Your task to perform on an android device: open app "Contacts" (install if not already installed) Image 0: 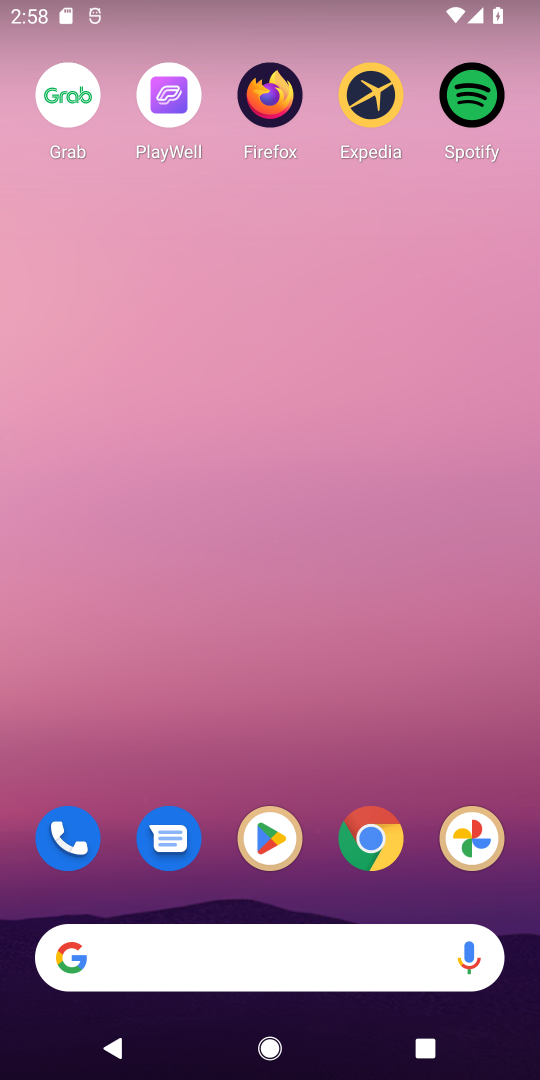
Step 0: drag from (319, 897) to (190, 84)
Your task to perform on an android device: open app "Contacts" (install if not already installed) Image 1: 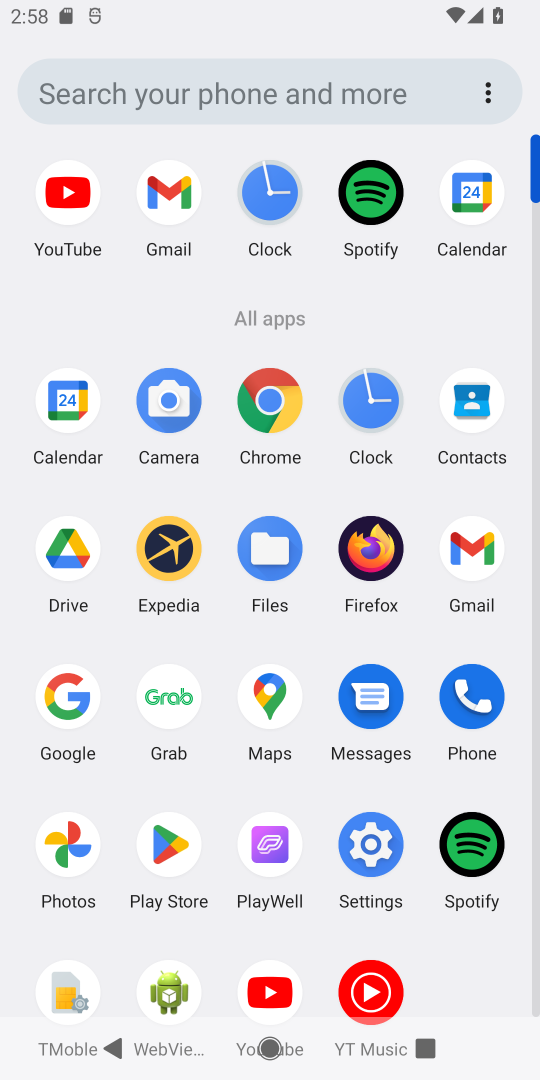
Step 1: click (463, 441)
Your task to perform on an android device: open app "Contacts" (install if not already installed) Image 2: 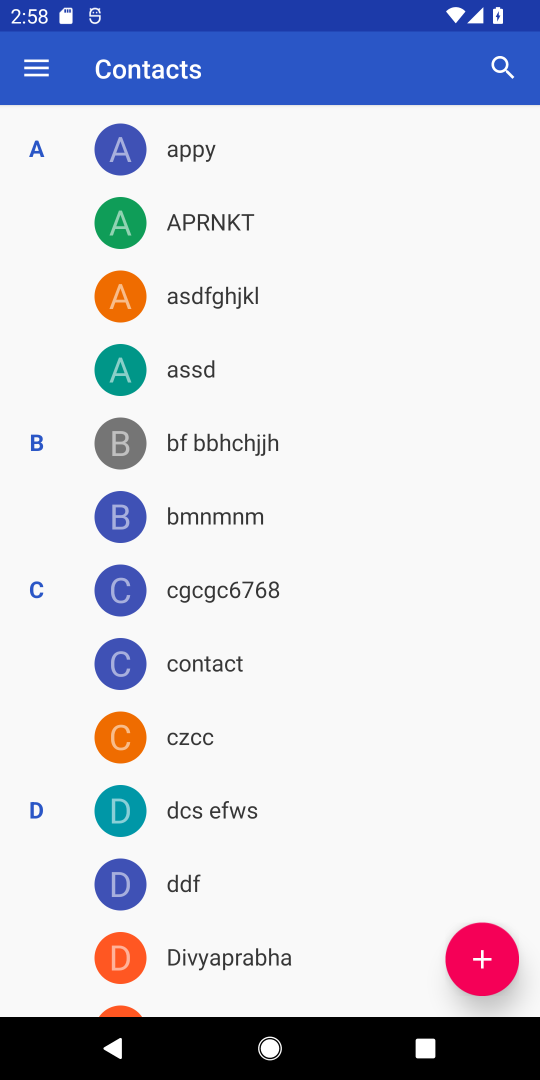
Step 2: task complete